Your task to perform on an android device: check storage Image 0: 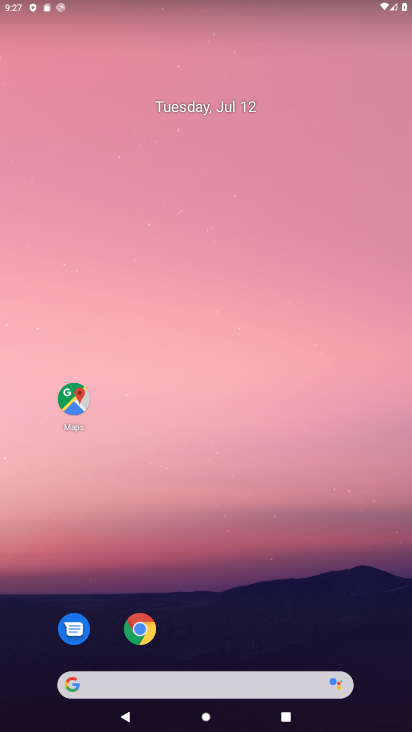
Step 0: drag from (335, 628) to (312, 156)
Your task to perform on an android device: check storage Image 1: 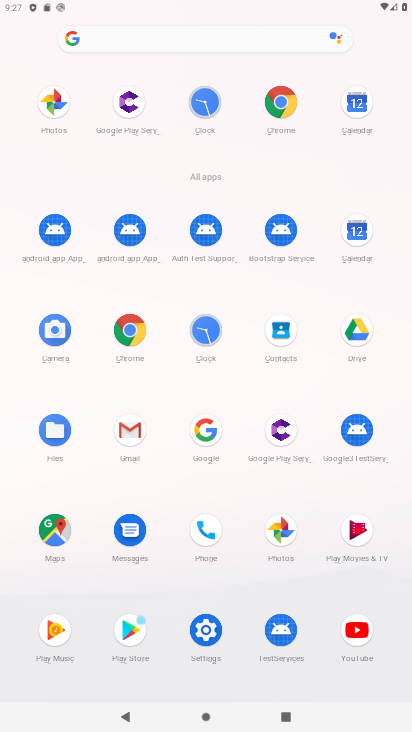
Step 1: click (211, 625)
Your task to perform on an android device: check storage Image 2: 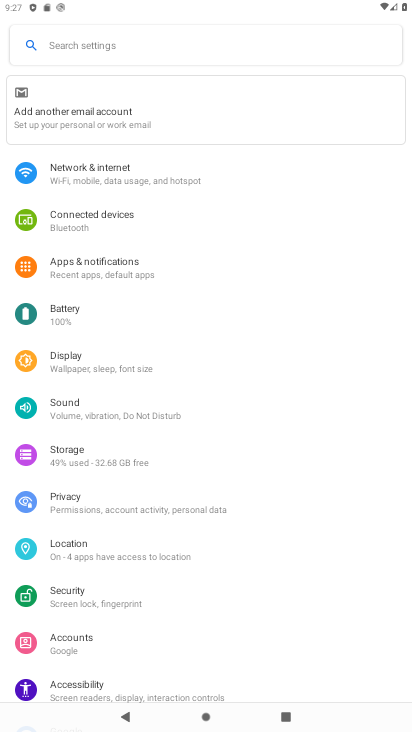
Step 2: click (69, 448)
Your task to perform on an android device: check storage Image 3: 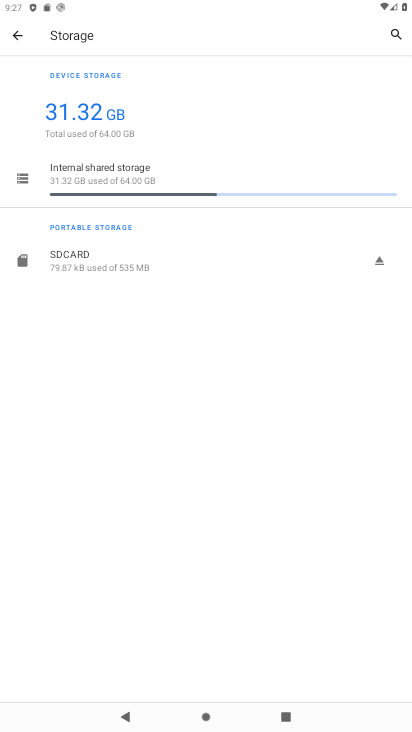
Step 3: task complete